Your task to perform on an android device: manage bookmarks in the chrome app Image 0: 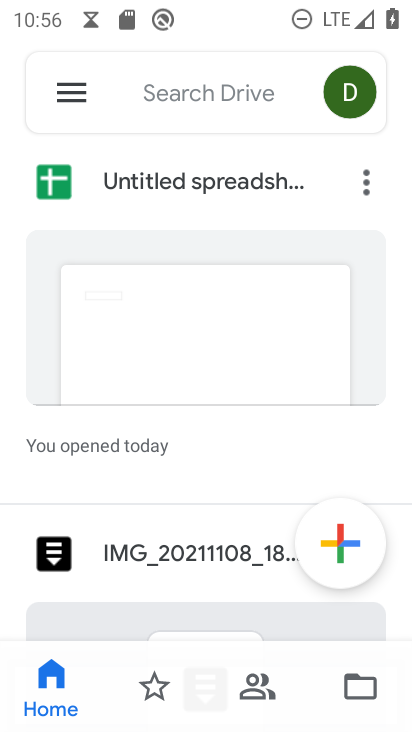
Step 0: press home button
Your task to perform on an android device: manage bookmarks in the chrome app Image 1: 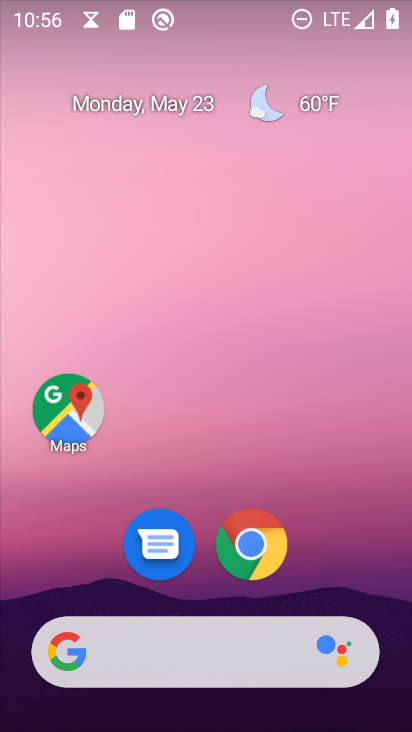
Step 1: click (254, 559)
Your task to perform on an android device: manage bookmarks in the chrome app Image 2: 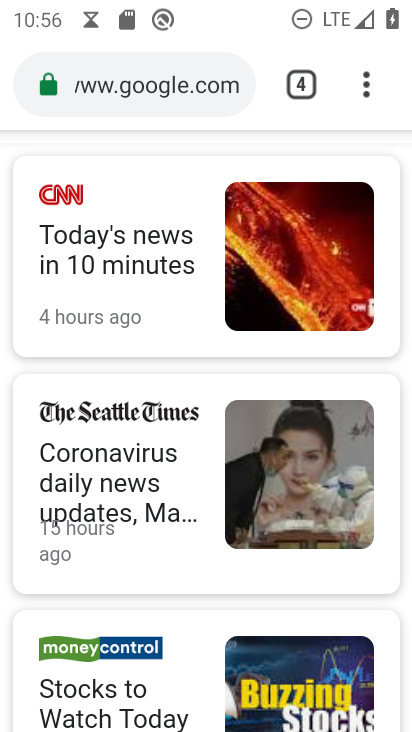
Step 2: click (365, 84)
Your task to perform on an android device: manage bookmarks in the chrome app Image 3: 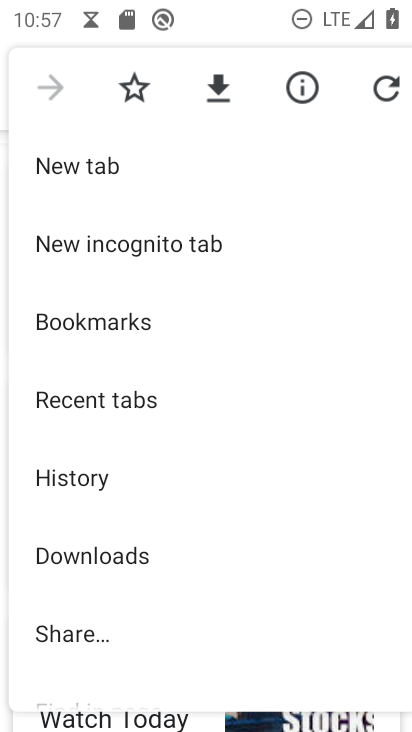
Step 3: click (94, 322)
Your task to perform on an android device: manage bookmarks in the chrome app Image 4: 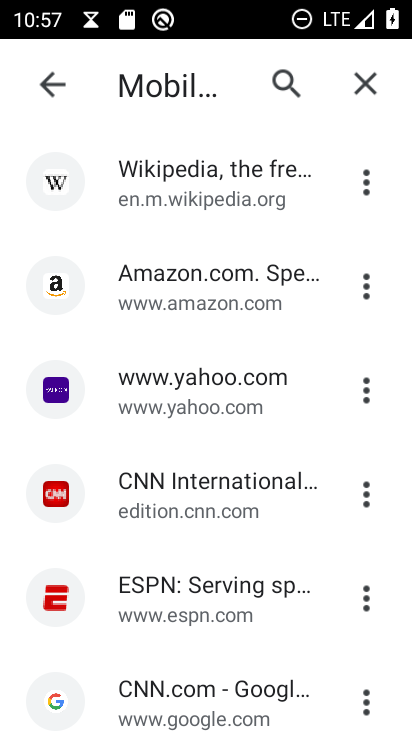
Step 4: click (361, 701)
Your task to perform on an android device: manage bookmarks in the chrome app Image 5: 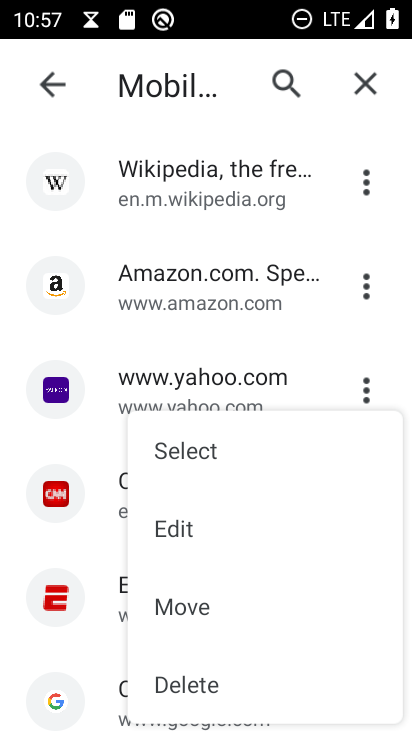
Step 5: click (189, 684)
Your task to perform on an android device: manage bookmarks in the chrome app Image 6: 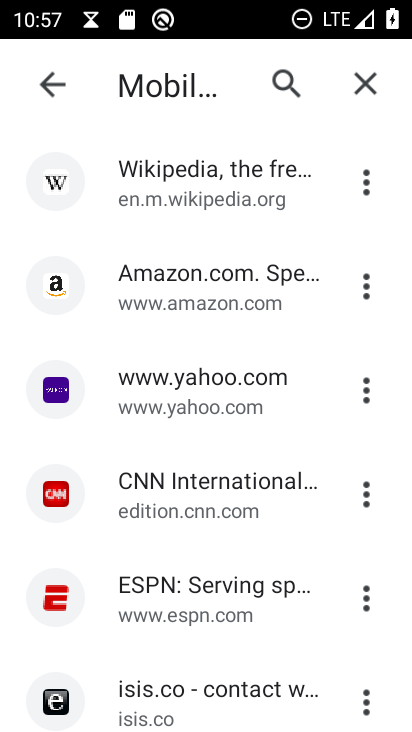
Step 6: task complete